Your task to perform on an android device: Open Yahoo.com Image 0: 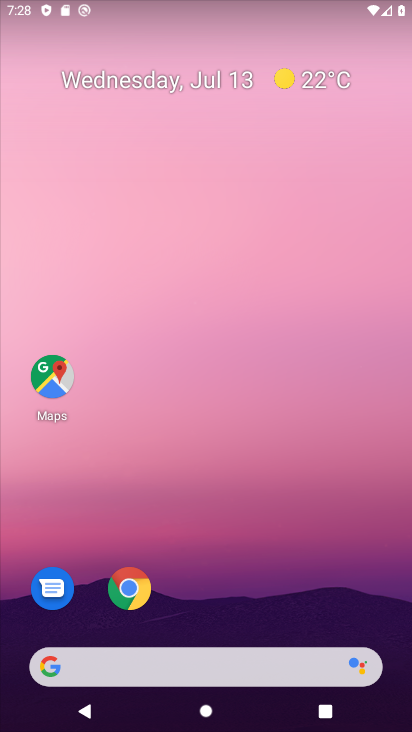
Step 0: drag from (271, 567) to (264, 111)
Your task to perform on an android device: Open Yahoo.com Image 1: 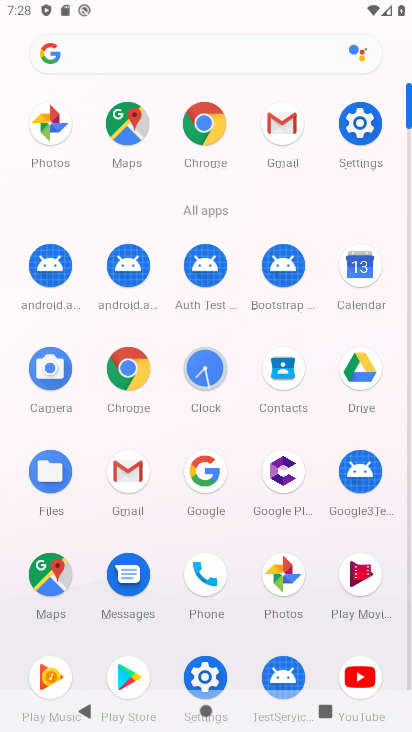
Step 1: click (212, 110)
Your task to perform on an android device: Open Yahoo.com Image 2: 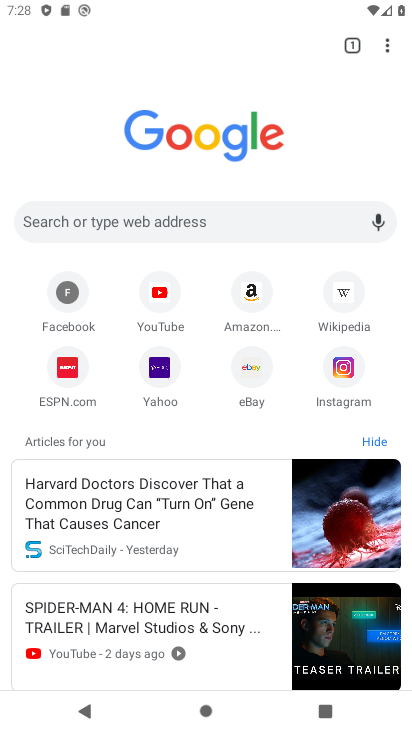
Step 2: click (156, 367)
Your task to perform on an android device: Open Yahoo.com Image 3: 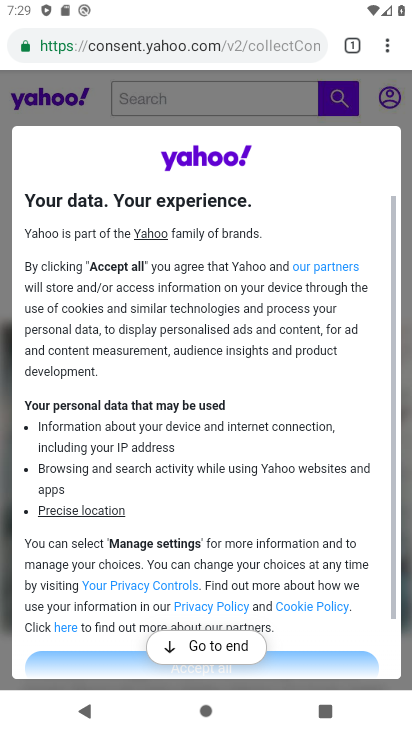
Step 3: task complete